Your task to perform on an android device: choose inbox layout in the gmail app Image 0: 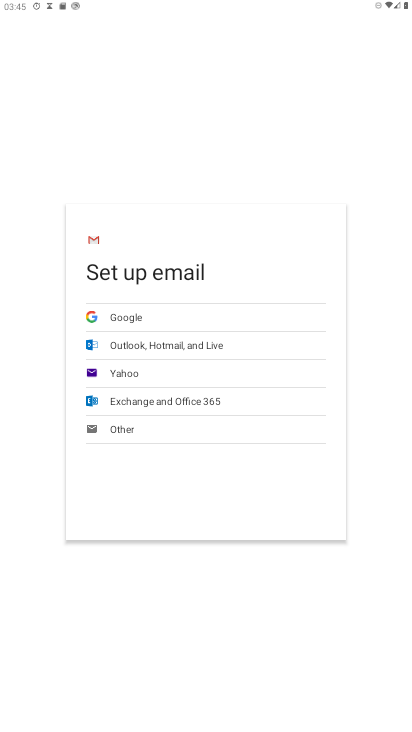
Step 0: press home button
Your task to perform on an android device: choose inbox layout in the gmail app Image 1: 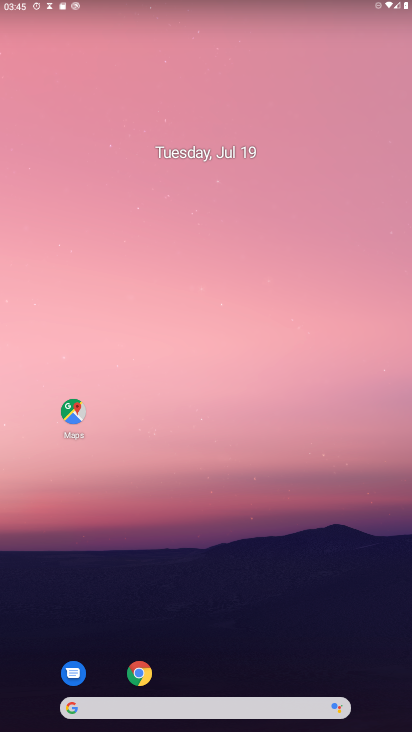
Step 1: drag from (184, 657) to (180, 156)
Your task to perform on an android device: choose inbox layout in the gmail app Image 2: 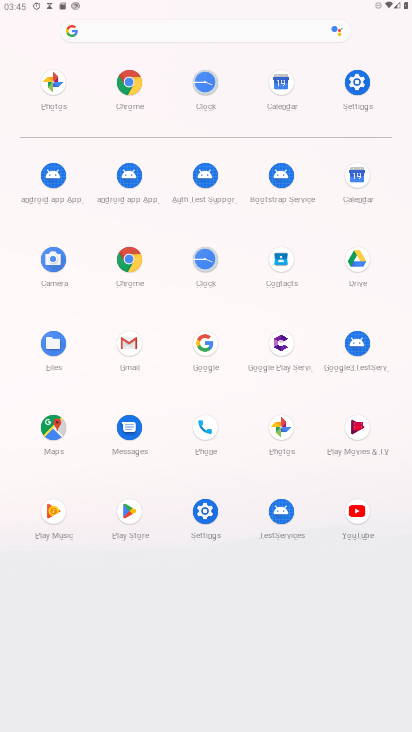
Step 2: click (123, 348)
Your task to perform on an android device: choose inbox layout in the gmail app Image 3: 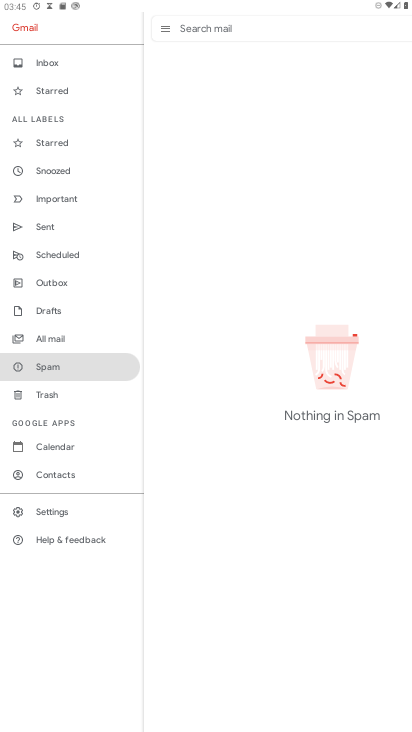
Step 3: click (58, 512)
Your task to perform on an android device: choose inbox layout in the gmail app Image 4: 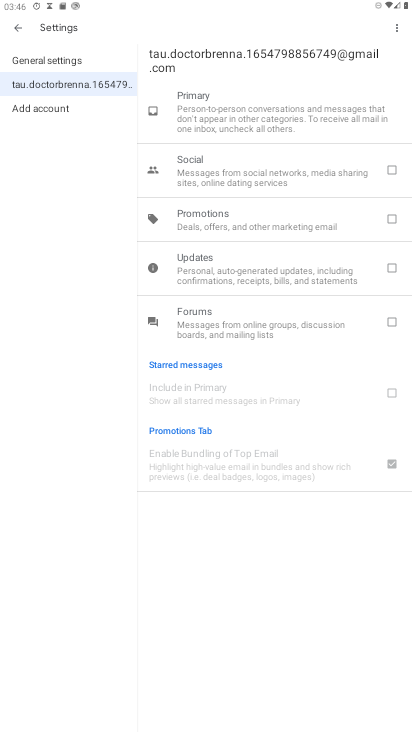
Step 4: press back button
Your task to perform on an android device: choose inbox layout in the gmail app Image 5: 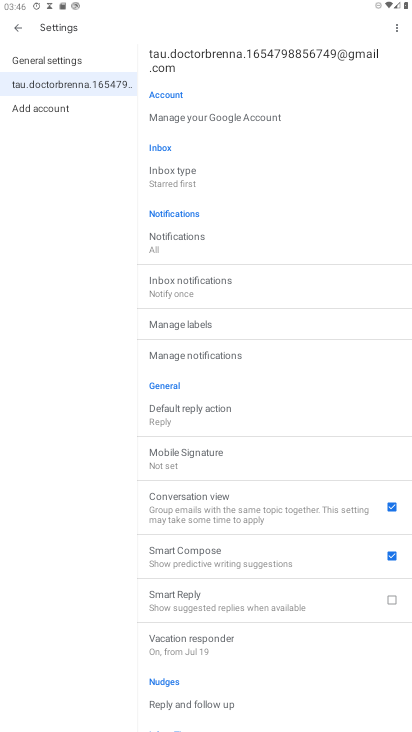
Step 5: click (180, 182)
Your task to perform on an android device: choose inbox layout in the gmail app Image 6: 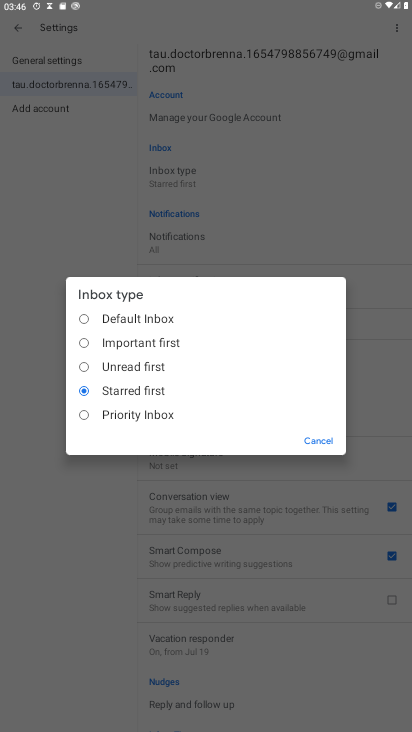
Step 6: click (105, 314)
Your task to perform on an android device: choose inbox layout in the gmail app Image 7: 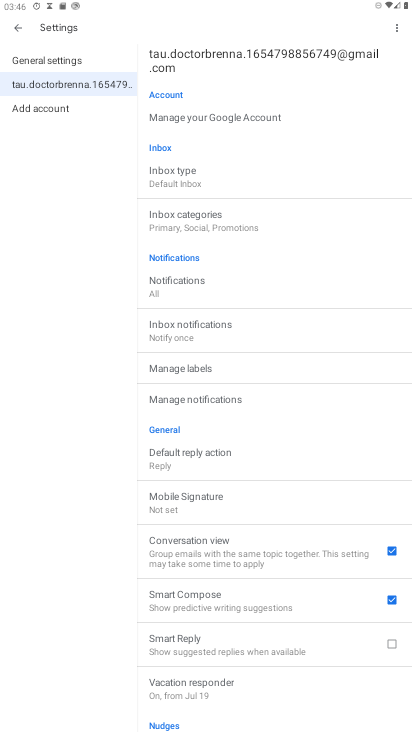
Step 7: task complete